Your task to perform on an android device: turn off airplane mode Image 0: 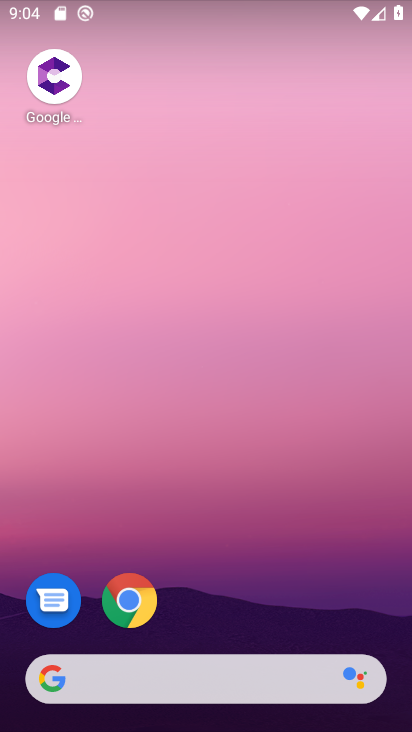
Step 0: drag from (195, 725) to (188, 209)
Your task to perform on an android device: turn off airplane mode Image 1: 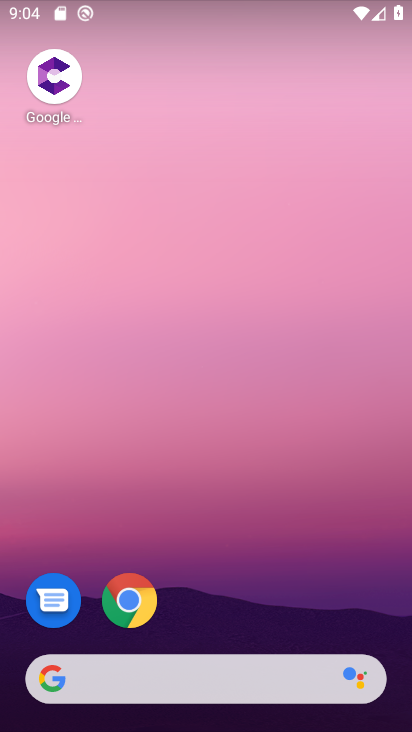
Step 1: drag from (213, 728) to (214, 24)
Your task to perform on an android device: turn off airplane mode Image 2: 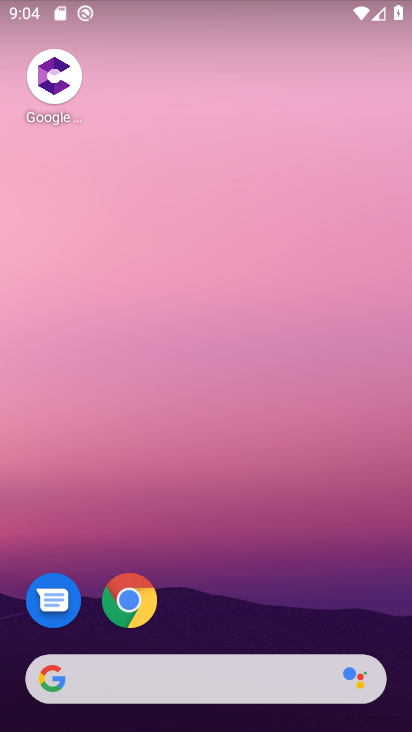
Step 2: drag from (221, 726) to (221, 173)
Your task to perform on an android device: turn off airplane mode Image 3: 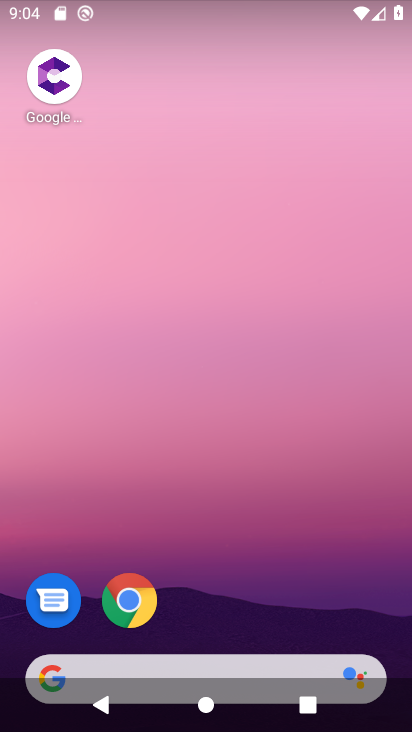
Step 3: drag from (214, 705) to (215, 206)
Your task to perform on an android device: turn off airplane mode Image 4: 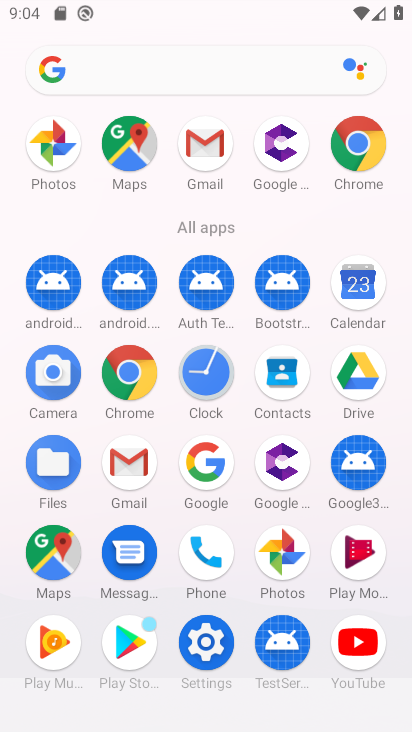
Step 4: click (211, 641)
Your task to perform on an android device: turn off airplane mode Image 5: 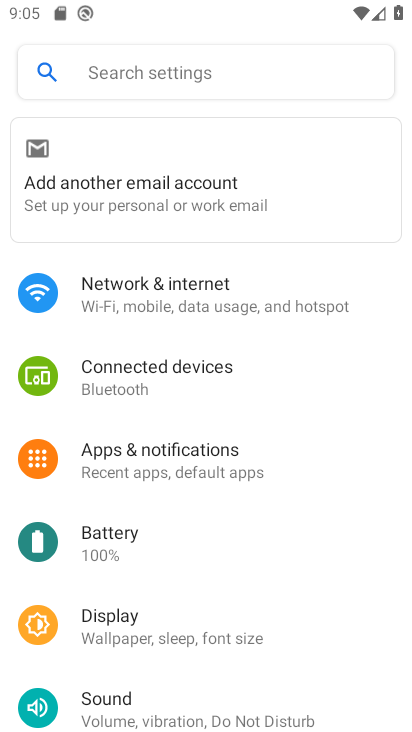
Step 5: click (143, 289)
Your task to perform on an android device: turn off airplane mode Image 6: 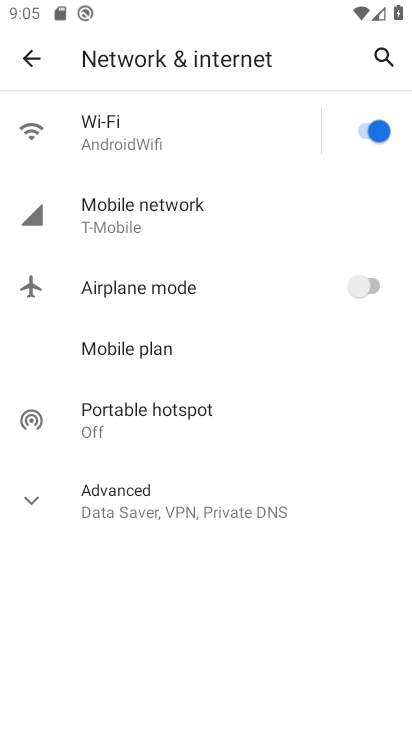
Step 6: task complete